Your task to perform on an android device: Go to ESPN.com Image 0: 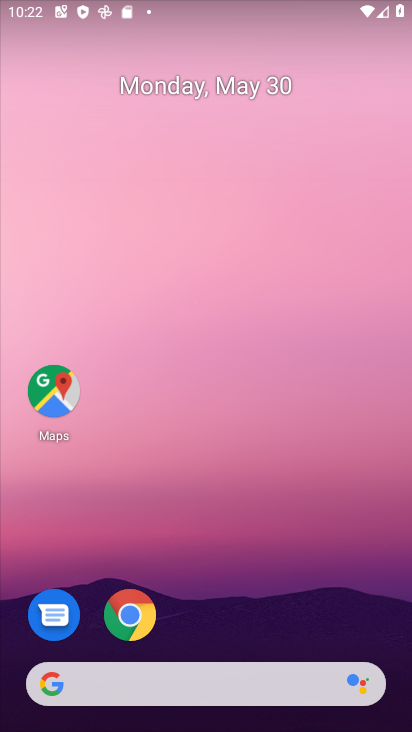
Step 0: click (123, 605)
Your task to perform on an android device: Go to ESPN.com Image 1: 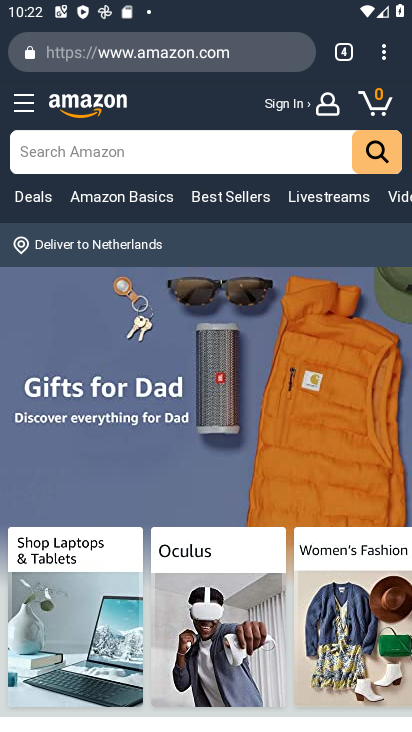
Step 1: drag from (215, 95) to (215, 382)
Your task to perform on an android device: Go to ESPN.com Image 2: 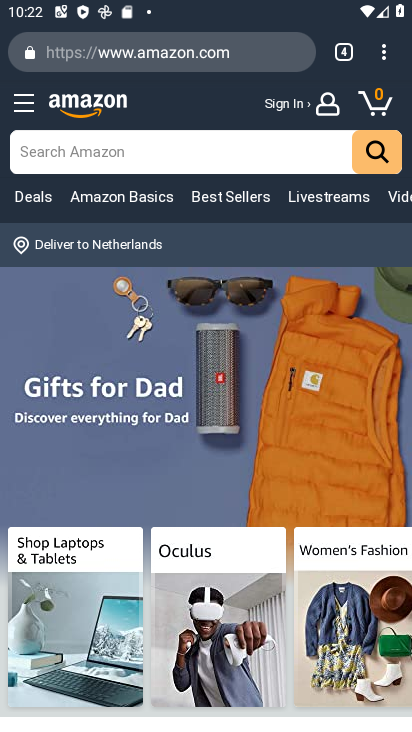
Step 2: click (354, 49)
Your task to perform on an android device: Go to ESPN.com Image 3: 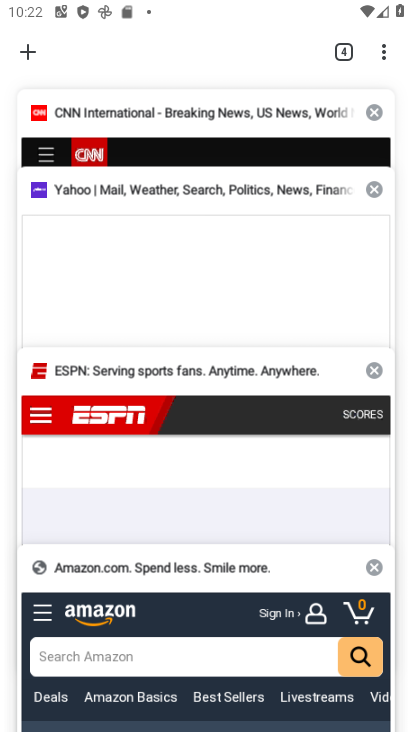
Step 3: click (124, 440)
Your task to perform on an android device: Go to ESPN.com Image 4: 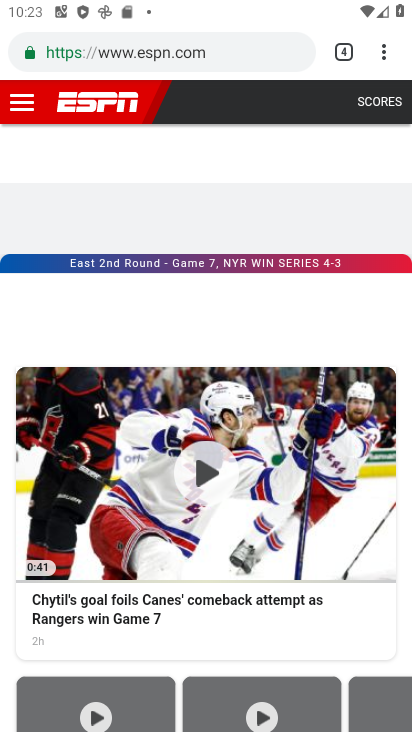
Step 4: task complete